Your task to perform on an android device: Open location settings Image 0: 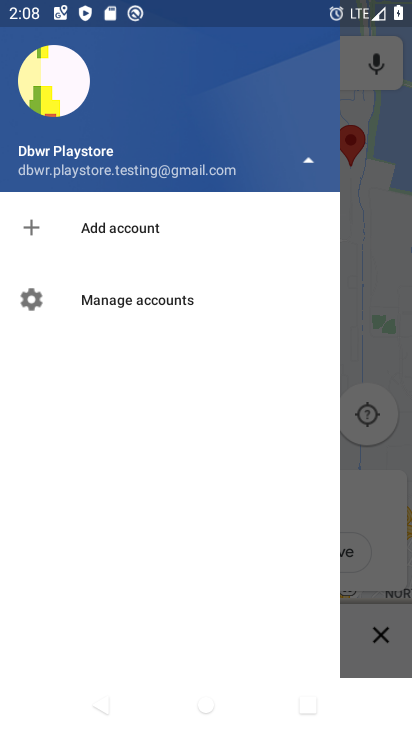
Step 0: press home button
Your task to perform on an android device: Open location settings Image 1: 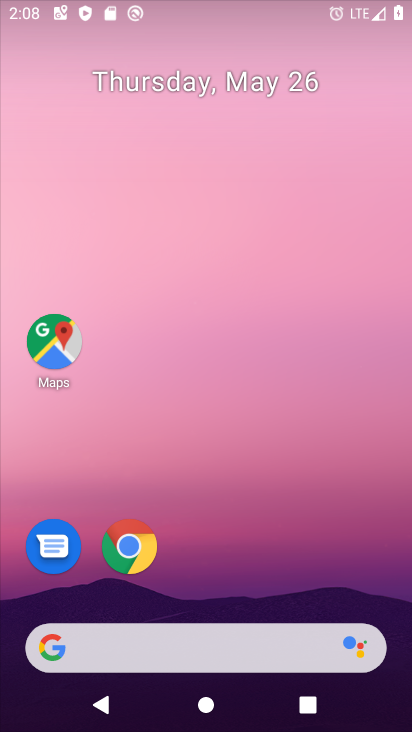
Step 1: drag from (242, 576) to (328, 102)
Your task to perform on an android device: Open location settings Image 2: 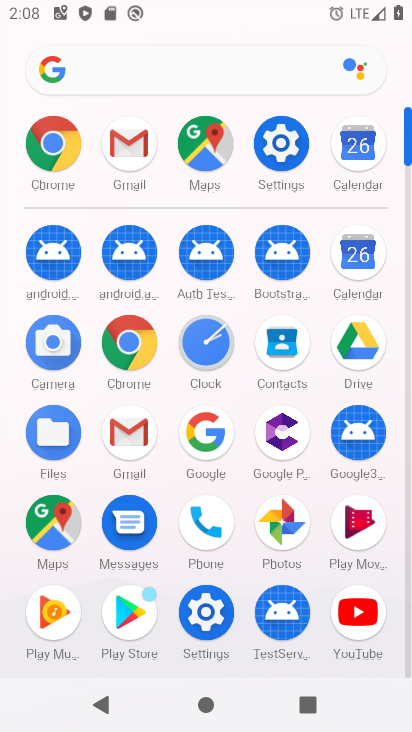
Step 2: click (267, 141)
Your task to perform on an android device: Open location settings Image 3: 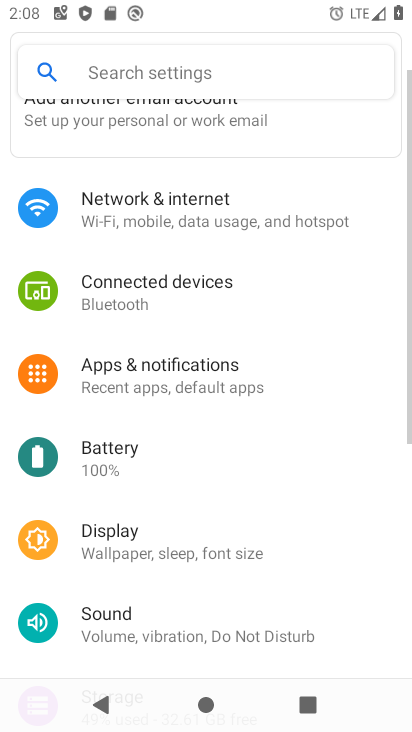
Step 3: drag from (225, 576) to (266, 160)
Your task to perform on an android device: Open location settings Image 4: 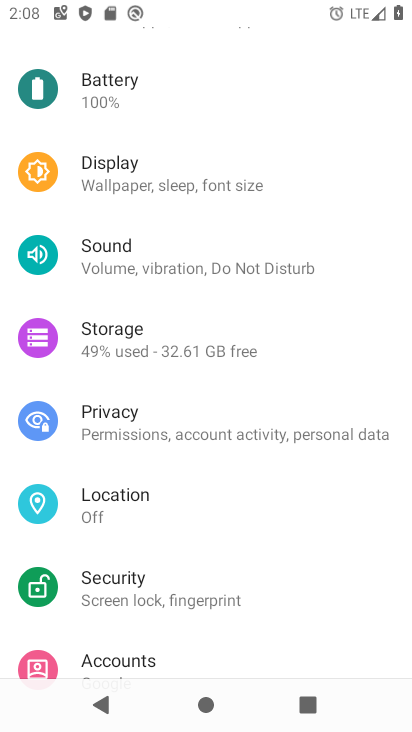
Step 4: click (157, 487)
Your task to perform on an android device: Open location settings Image 5: 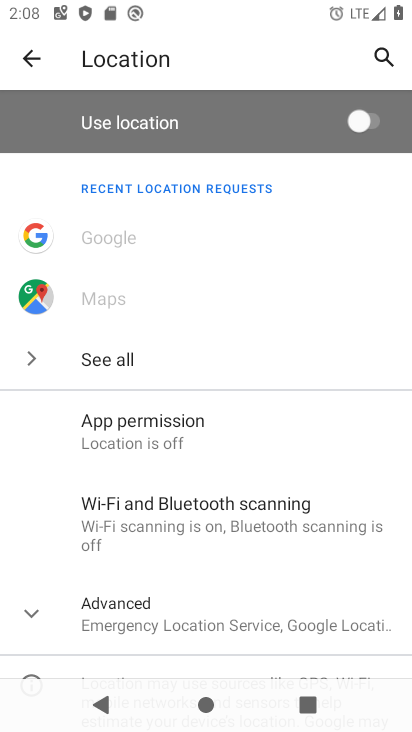
Step 5: task complete